Your task to perform on an android device: allow notifications from all sites in the chrome app Image 0: 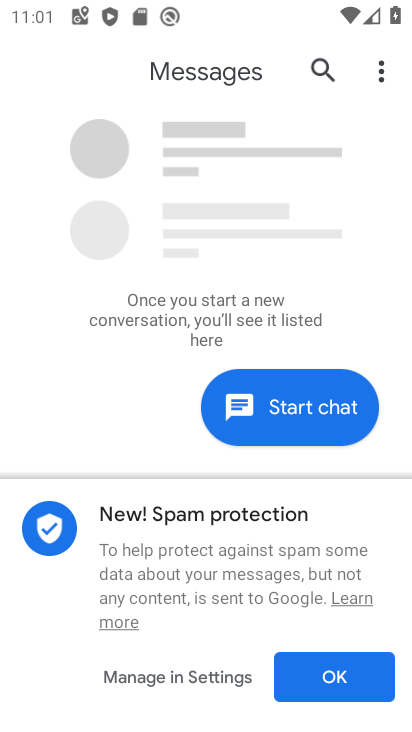
Step 0: press home button
Your task to perform on an android device: allow notifications from all sites in the chrome app Image 1: 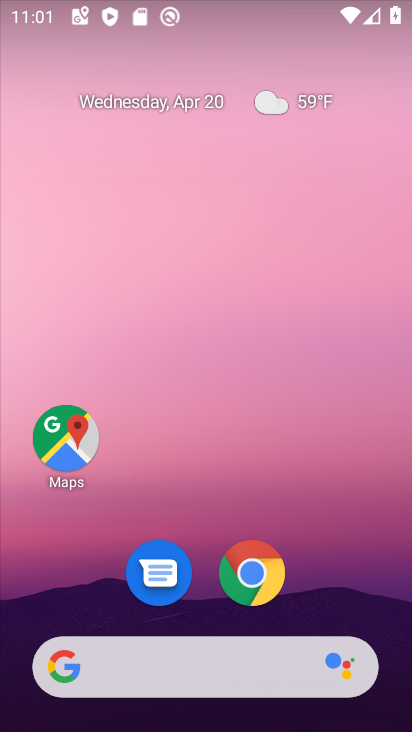
Step 1: click (253, 574)
Your task to perform on an android device: allow notifications from all sites in the chrome app Image 2: 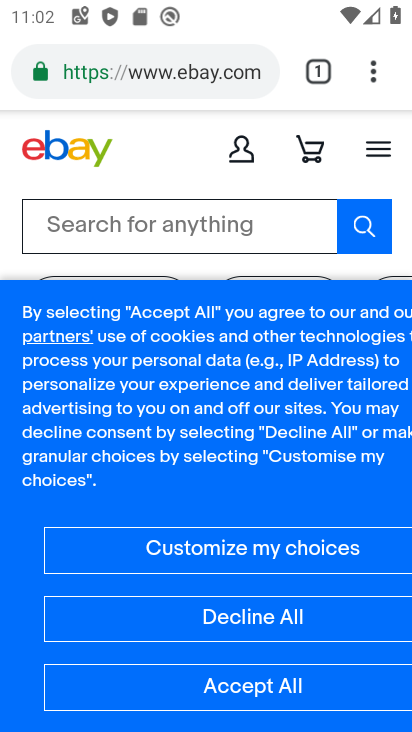
Step 2: click (373, 78)
Your task to perform on an android device: allow notifications from all sites in the chrome app Image 3: 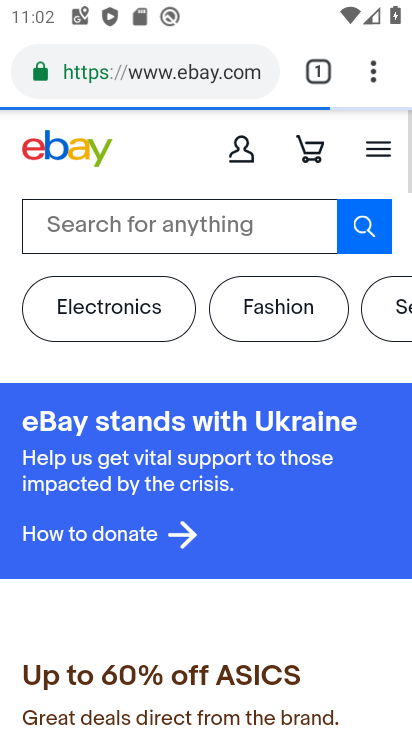
Step 3: click (373, 78)
Your task to perform on an android device: allow notifications from all sites in the chrome app Image 4: 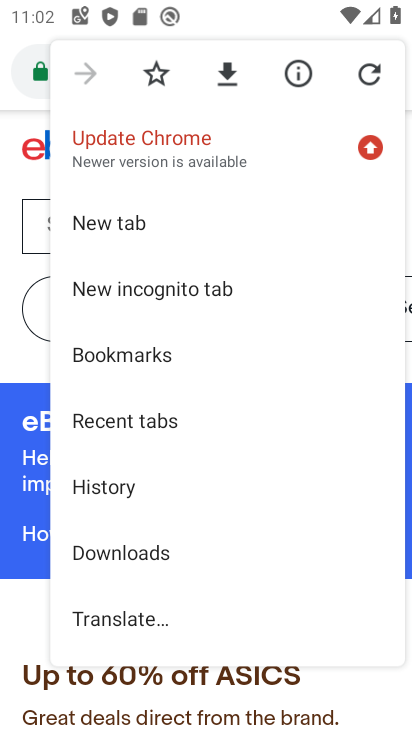
Step 4: drag from (204, 475) to (198, 196)
Your task to perform on an android device: allow notifications from all sites in the chrome app Image 5: 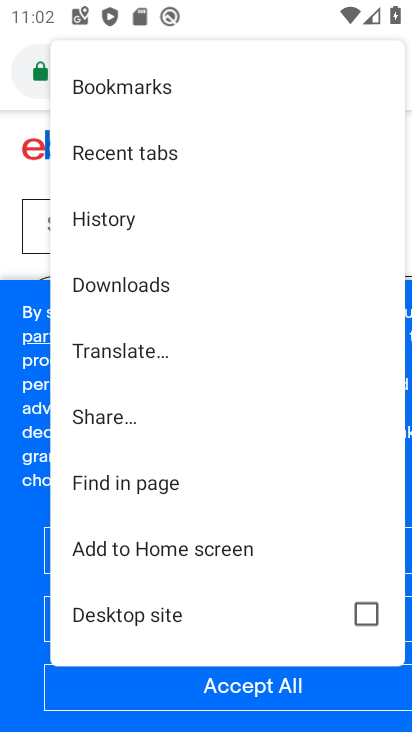
Step 5: drag from (176, 612) to (162, 185)
Your task to perform on an android device: allow notifications from all sites in the chrome app Image 6: 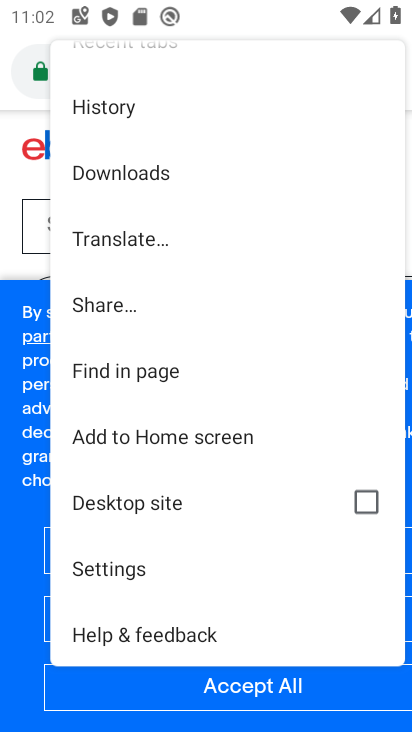
Step 6: click (106, 567)
Your task to perform on an android device: allow notifications from all sites in the chrome app Image 7: 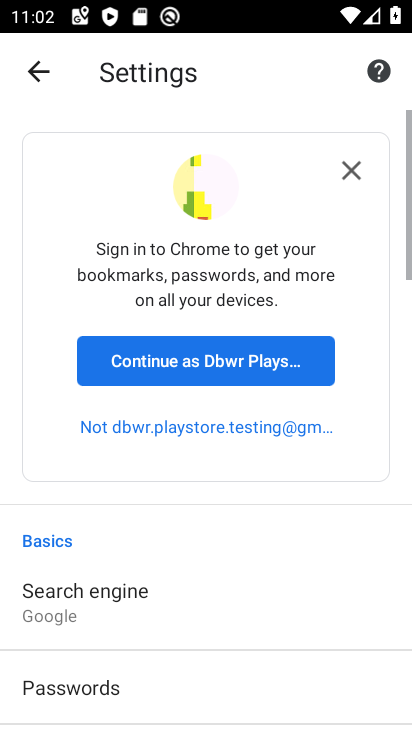
Step 7: drag from (165, 545) to (131, 162)
Your task to perform on an android device: allow notifications from all sites in the chrome app Image 8: 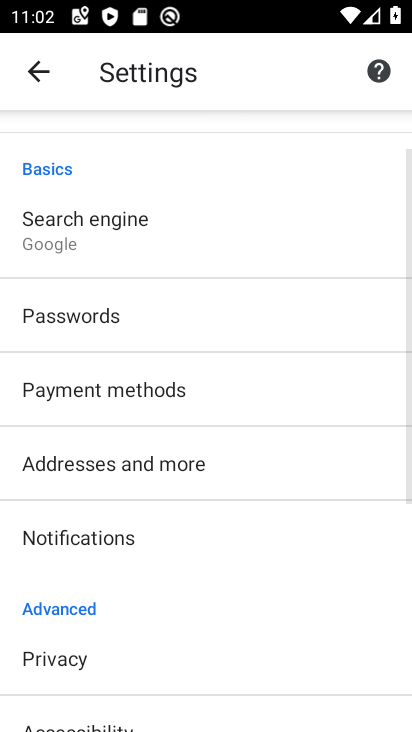
Step 8: drag from (167, 509) to (162, 172)
Your task to perform on an android device: allow notifications from all sites in the chrome app Image 9: 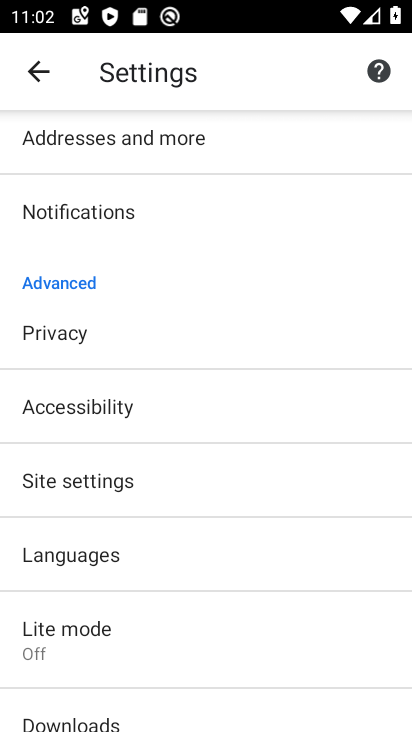
Step 9: click (77, 487)
Your task to perform on an android device: allow notifications from all sites in the chrome app Image 10: 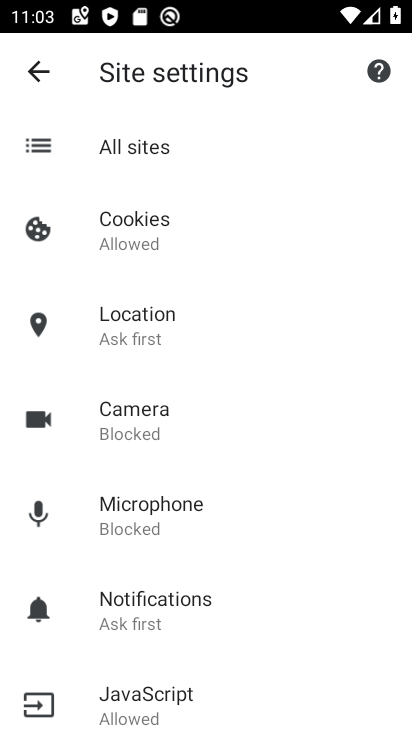
Step 10: click (159, 606)
Your task to perform on an android device: allow notifications from all sites in the chrome app Image 11: 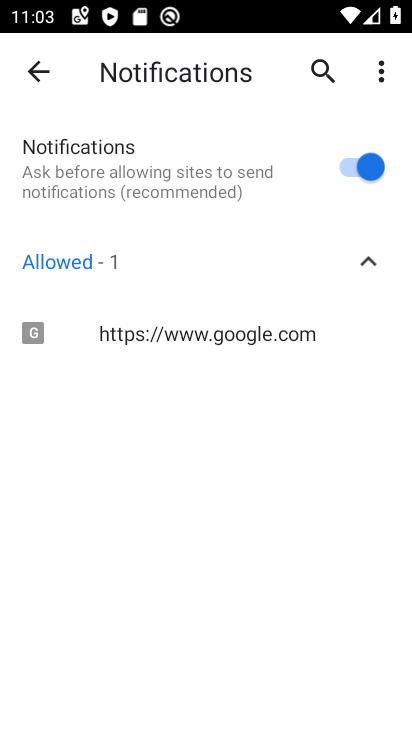
Step 11: task complete